Your task to perform on an android device: toggle show notifications on the lock screen Image 0: 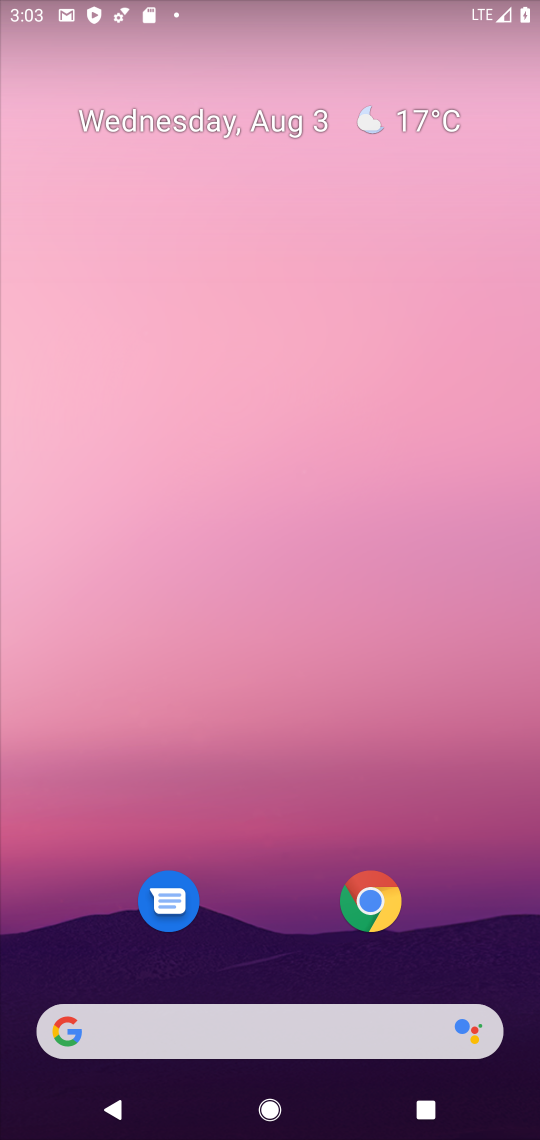
Step 0: drag from (266, 967) to (349, 286)
Your task to perform on an android device: toggle show notifications on the lock screen Image 1: 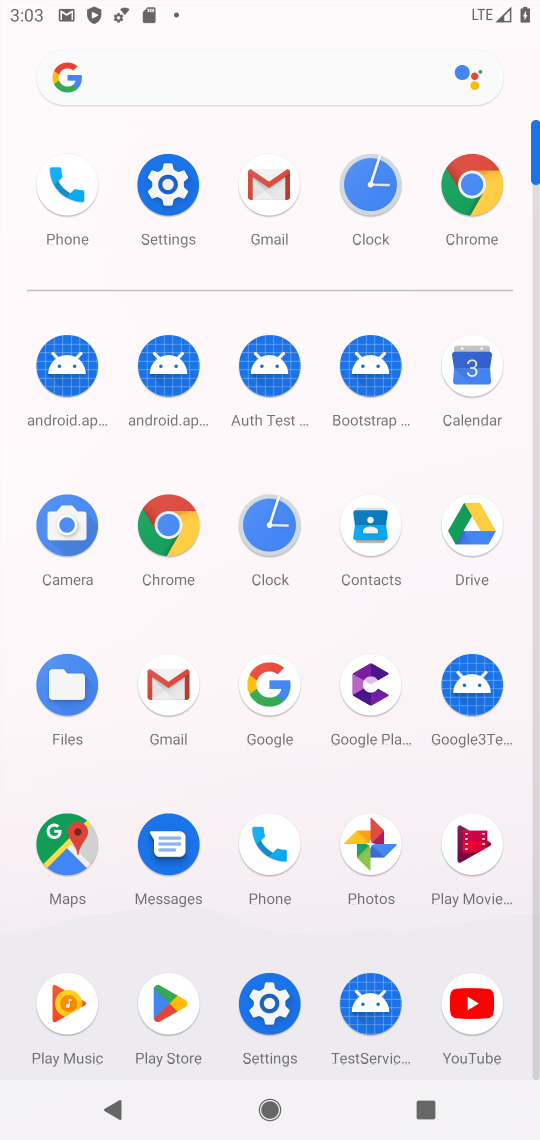
Step 1: click (168, 164)
Your task to perform on an android device: toggle show notifications on the lock screen Image 2: 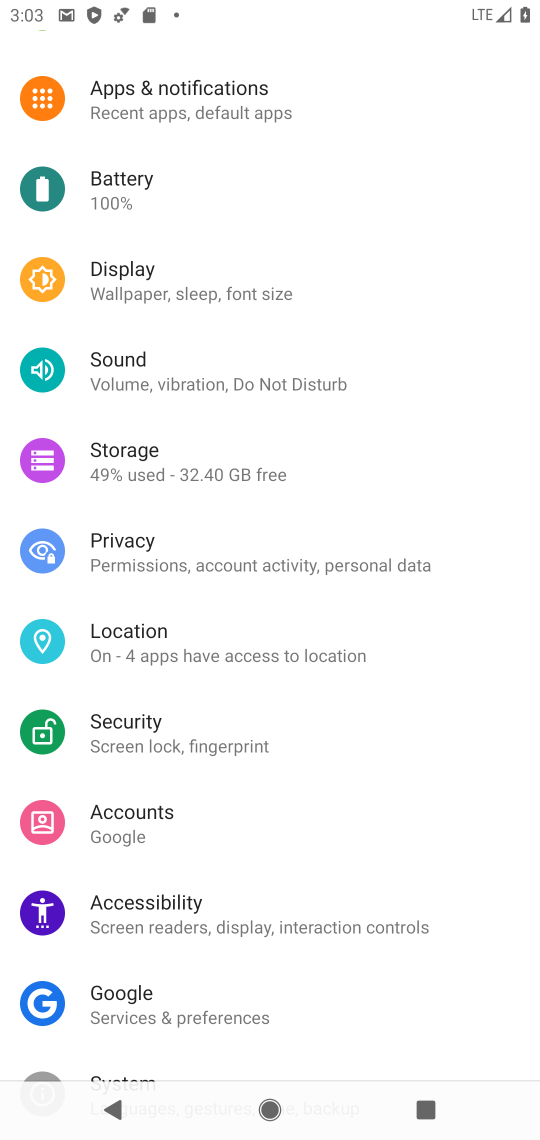
Step 2: drag from (249, 242) to (308, 921)
Your task to perform on an android device: toggle show notifications on the lock screen Image 3: 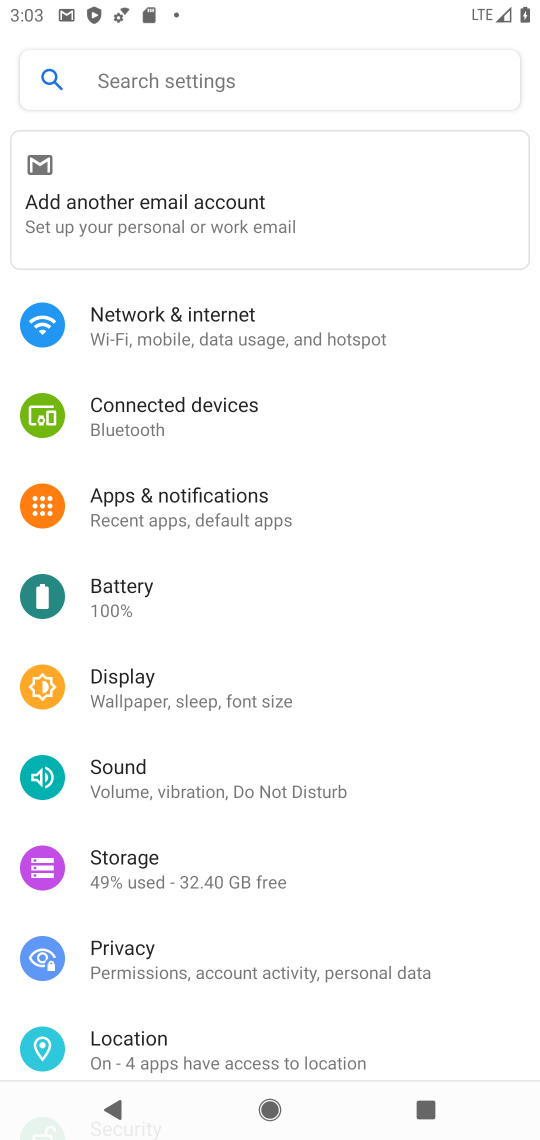
Step 3: click (202, 496)
Your task to perform on an android device: toggle show notifications on the lock screen Image 4: 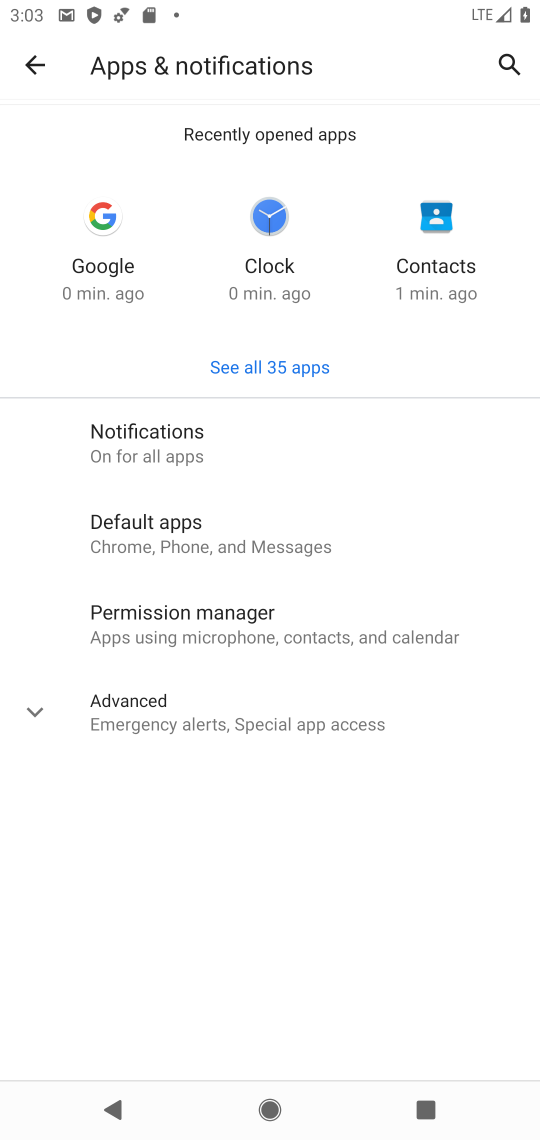
Step 4: click (208, 459)
Your task to perform on an android device: toggle show notifications on the lock screen Image 5: 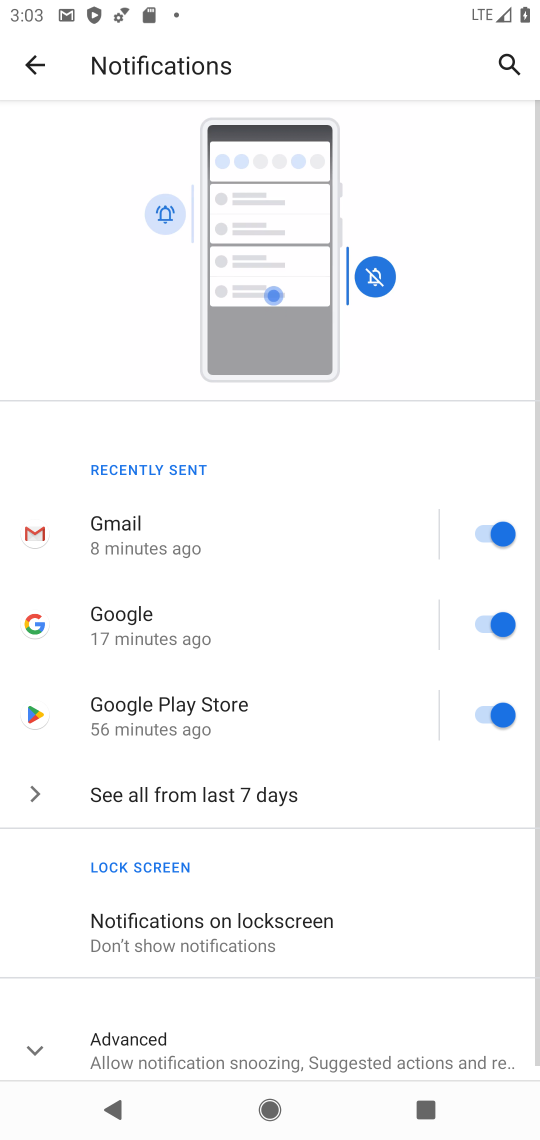
Step 5: drag from (237, 1022) to (237, 929)
Your task to perform on an android device: toggle show notifications on the lock screen Image 6: 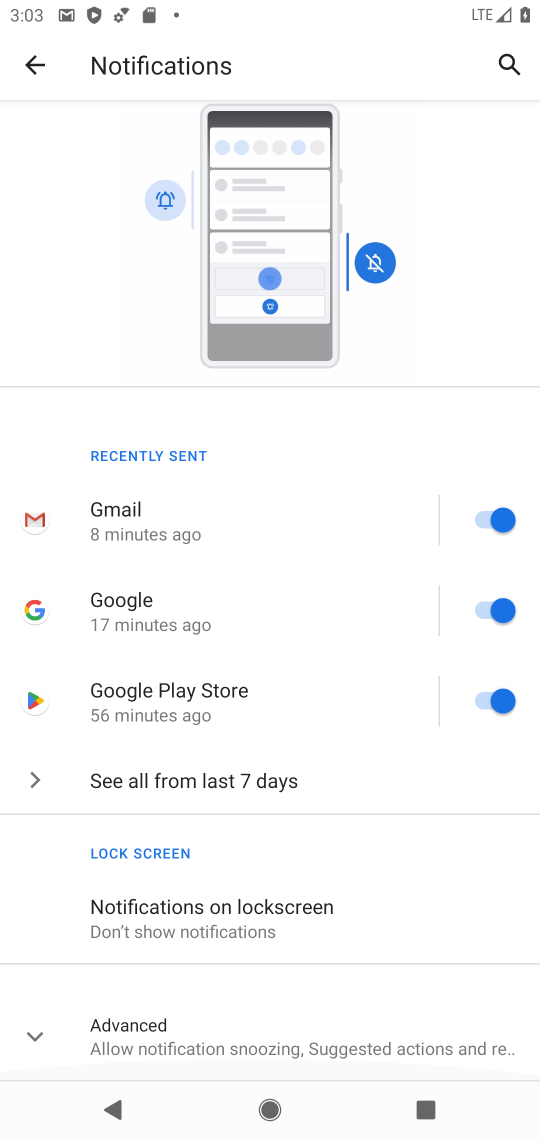
Step 6: click (234, 909)
Your task to perform on an android device: toggle show notifications on the lock screen Image 7: 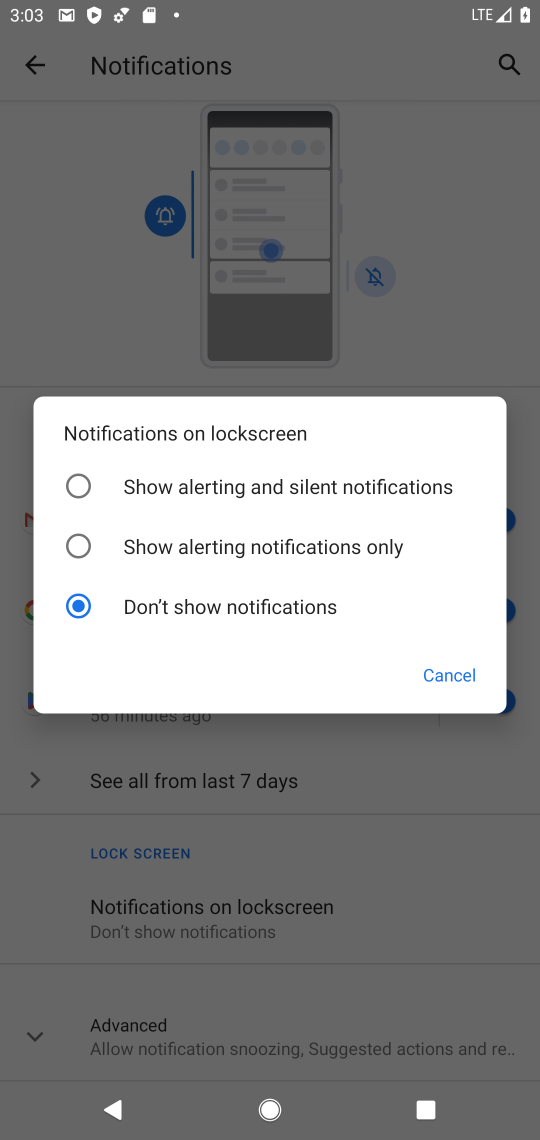
Step 7: click (144, 486)
Your task to perform on an android device: toggle show notifications on the lock screen Image 8: 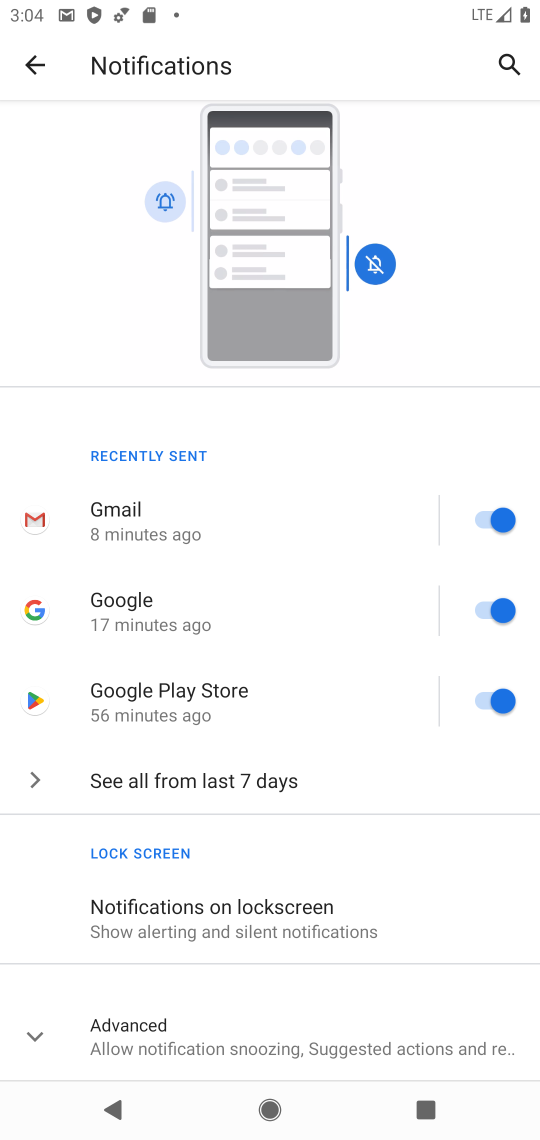
Step 8: task complete